Your task to perform on an android device: Go to CNN.com Image 0: 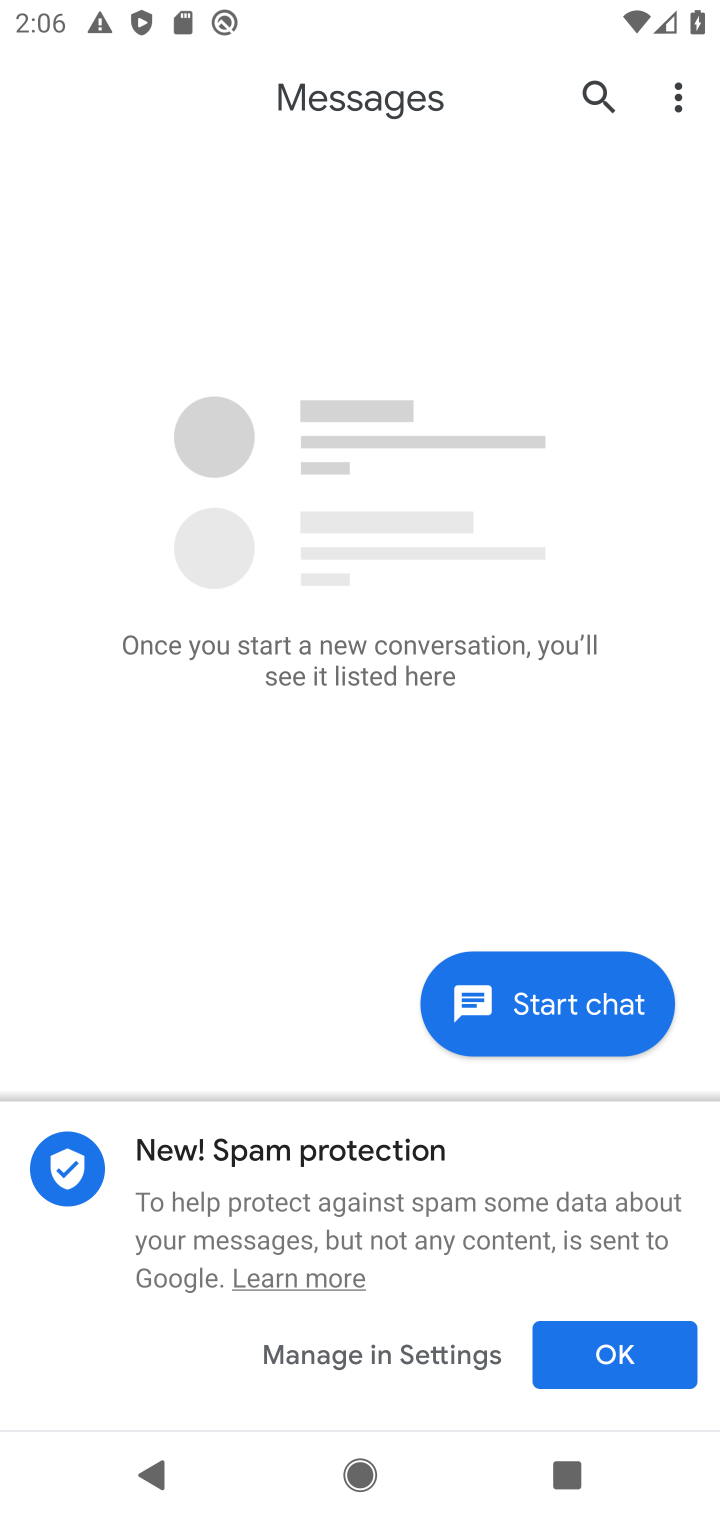
Step 0: press back button
Your task to perform on an android device: Go to CNN.com Image 1: 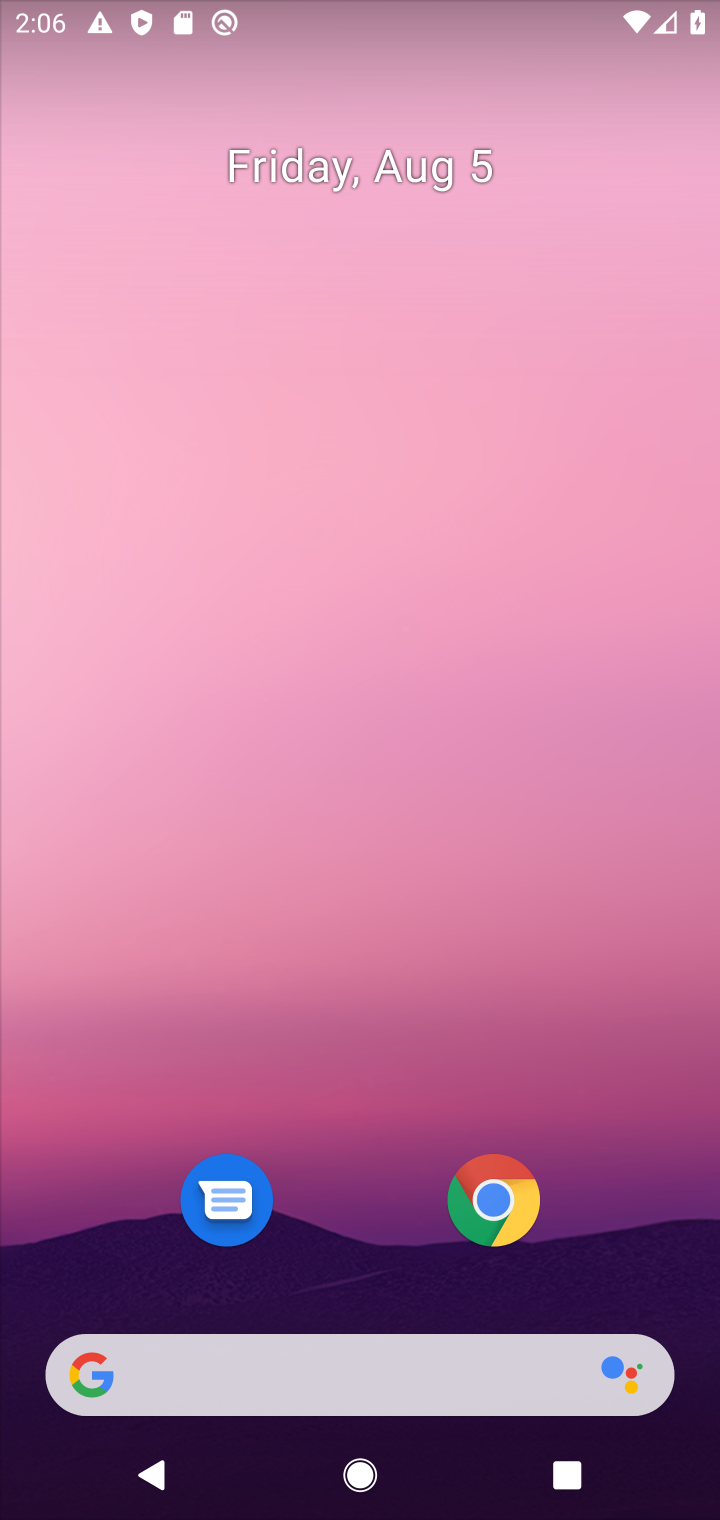
Step 1: click (501, 1178)
Your task to perform on an android device: Go to CNN.com Image 2: 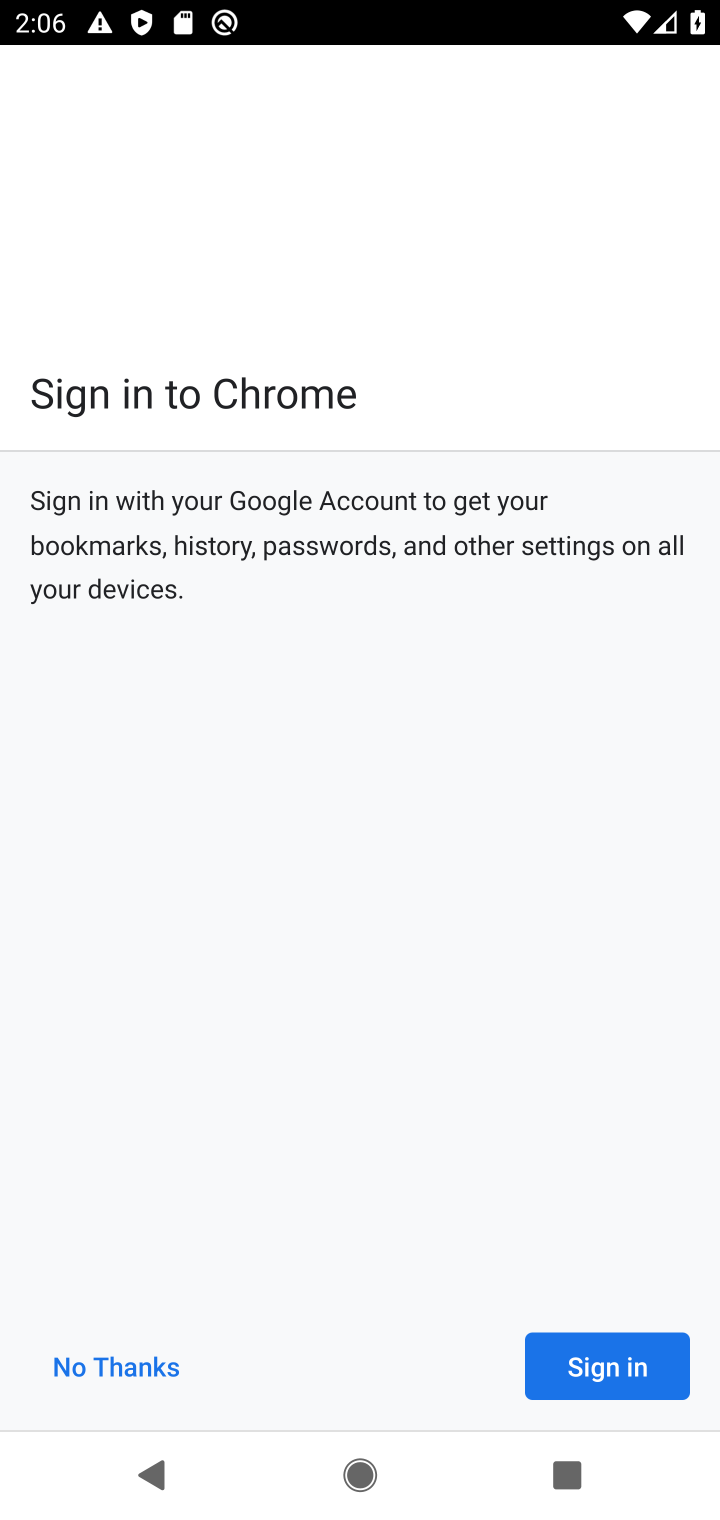
Step 2: click (632, 1367)
Your task to perform on an android device: Go to CNN.com Image 3: 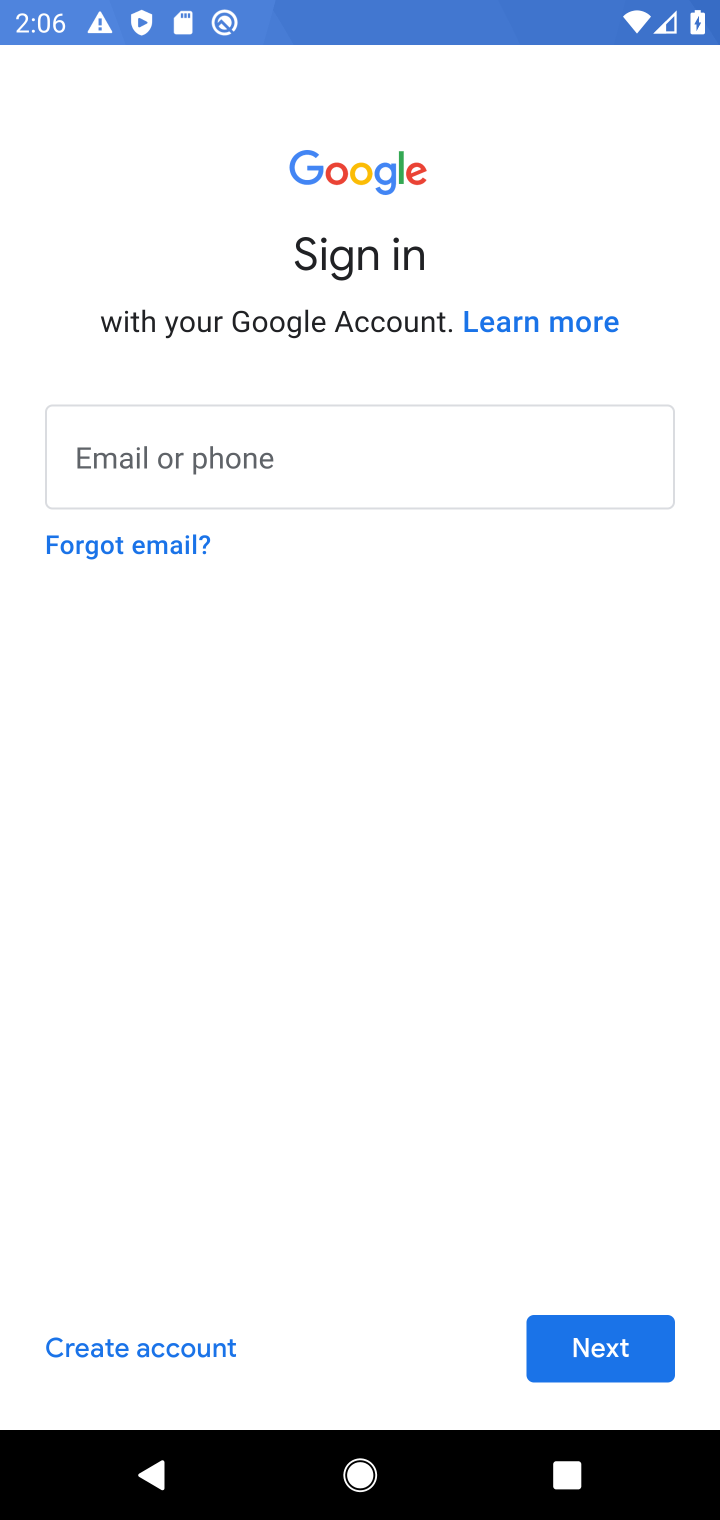
Step 3: click (581, 1335)
Your task to perform on an android device: Go to CNN.com Image 4: 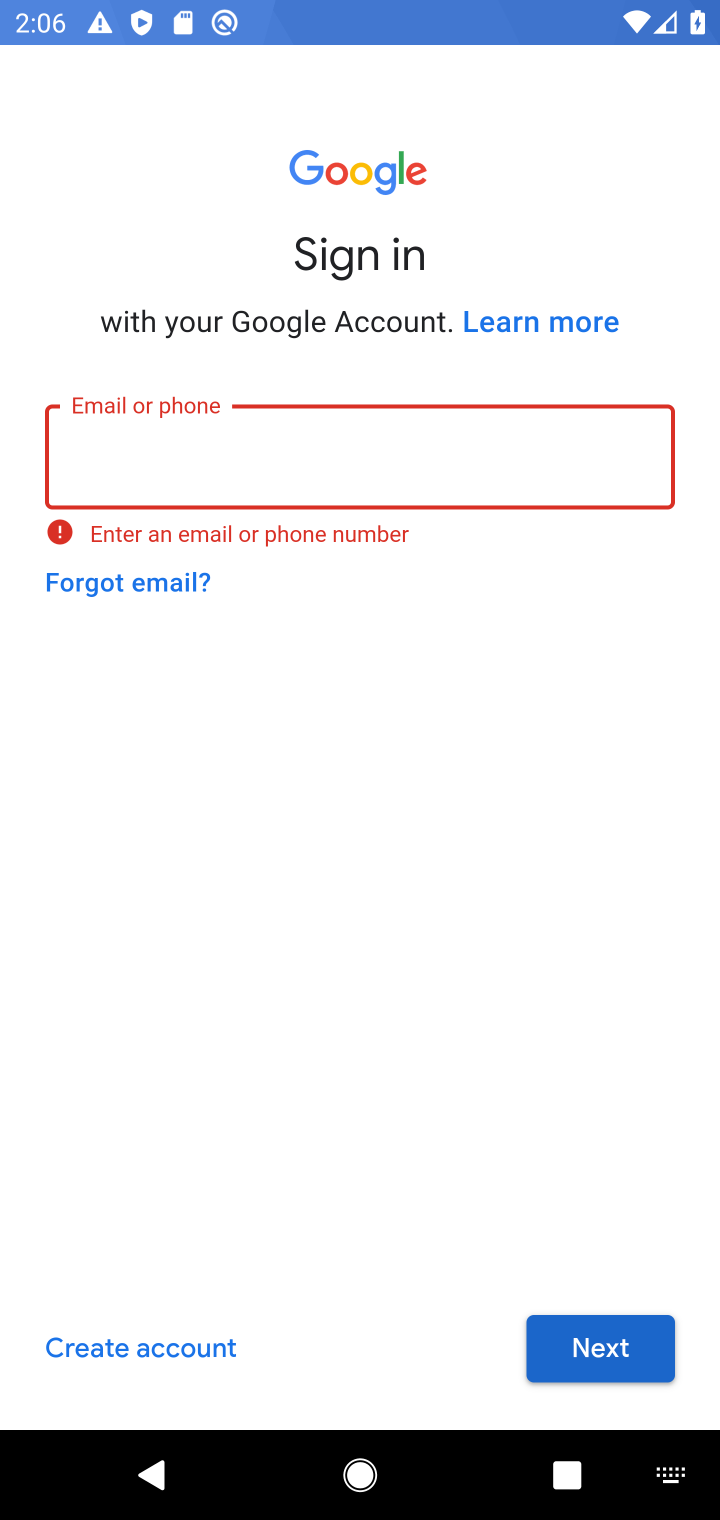
Step 4: task complete